Your task to perform on an android device: star an email in the gmail app Image 0: 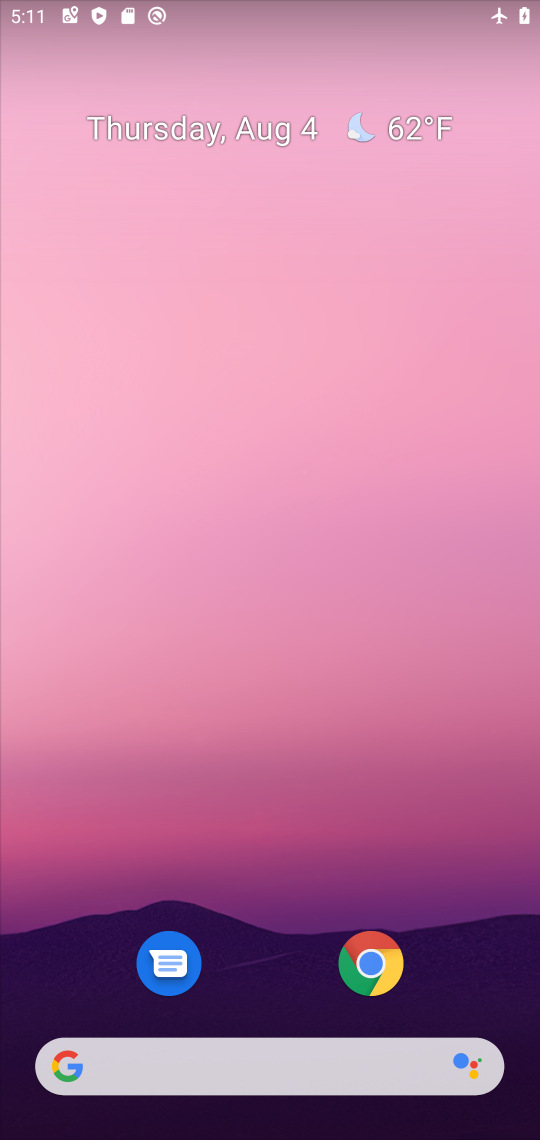
Step 0: drag from (294, 852) to (293, 97)
Your task to perform on an android device: star an email in the gmail app Image 1: 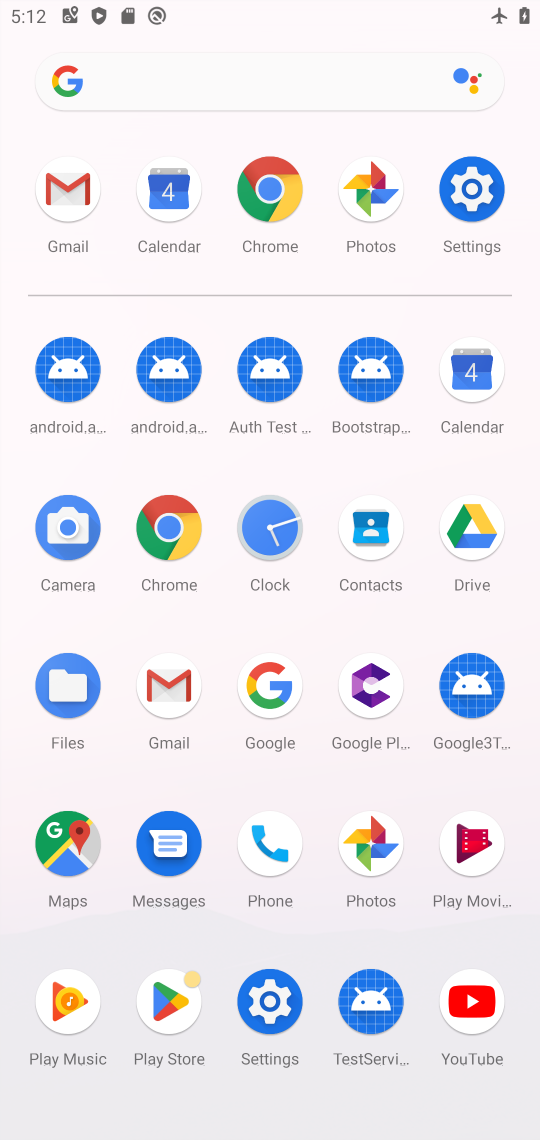
Step 1: click (68, 187)
Your task to perform on an android device: star an email in the gmail app Image 2: 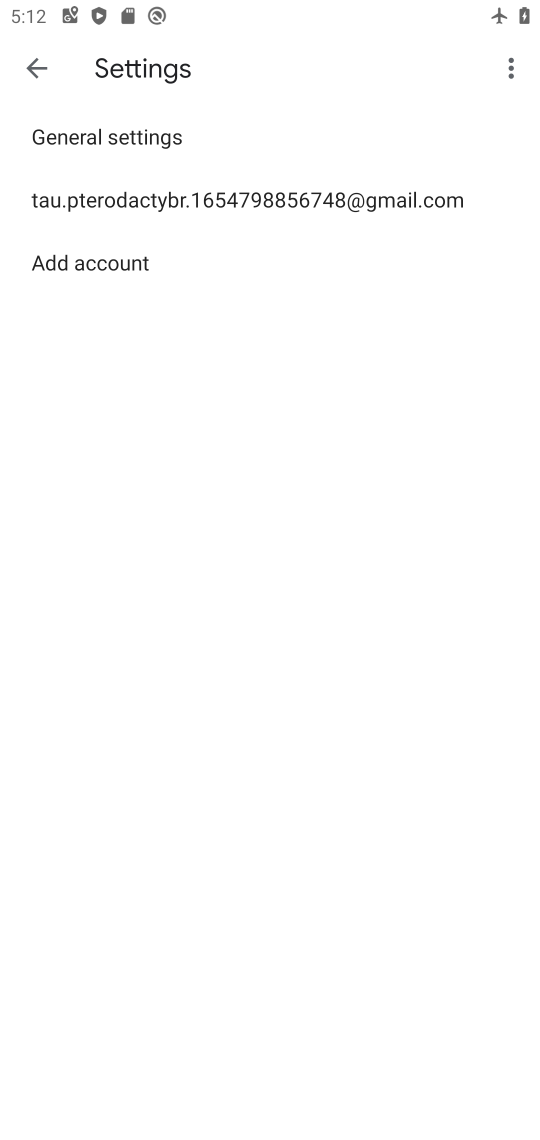
Step 2: click (34, 59)
Your task to perform on an android device: star an email in the gmail app Image 3: 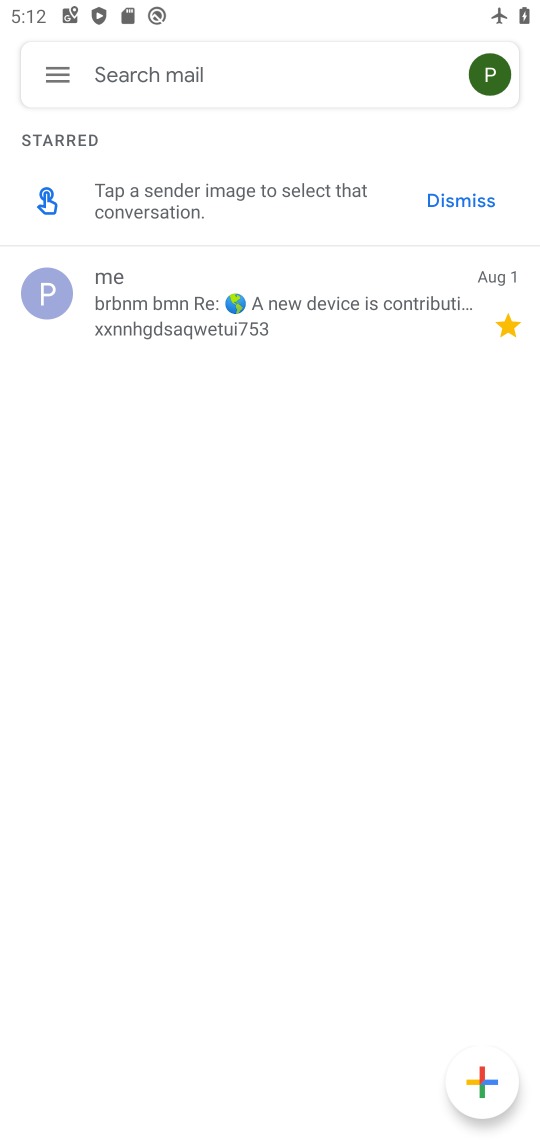
Step 3: task complete